Your task to perform on an android device: uninstall "VLC for Android" Image 0: 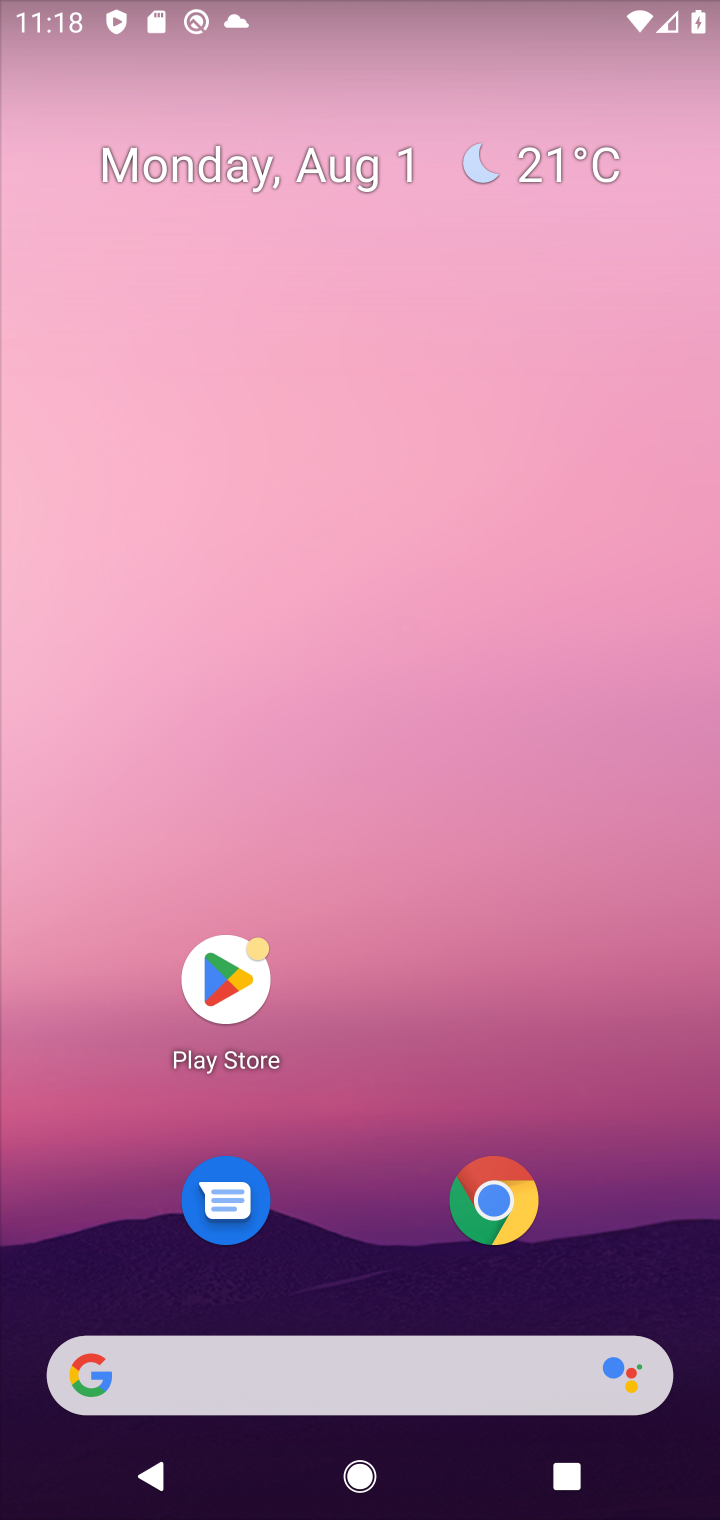
Step 0: click (238, 985)
Your task to perform on an android device: uninstall "VLC for Android" Image 1: 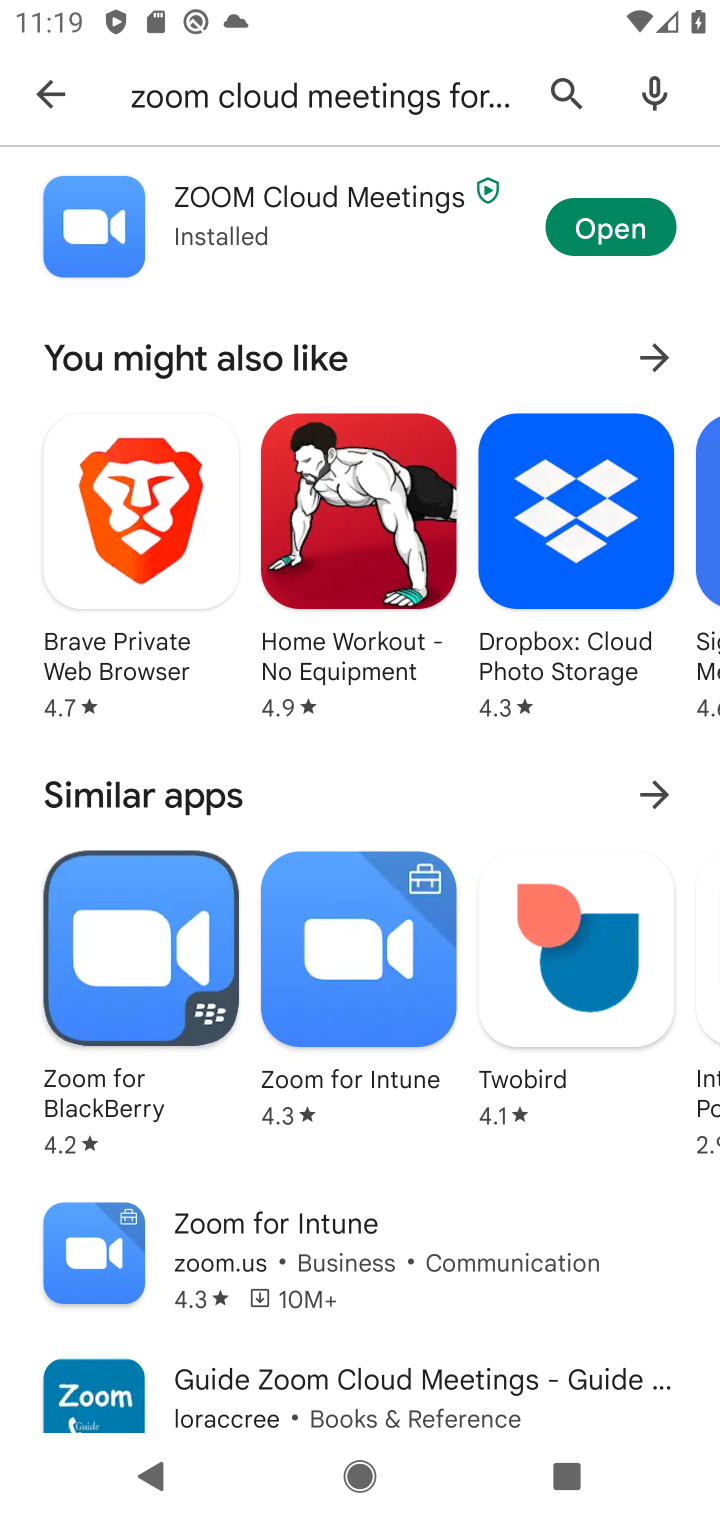
Step 1: click (550, 85)
Your task to perform on an android device: uninstall "VLC for Android" Image 2: 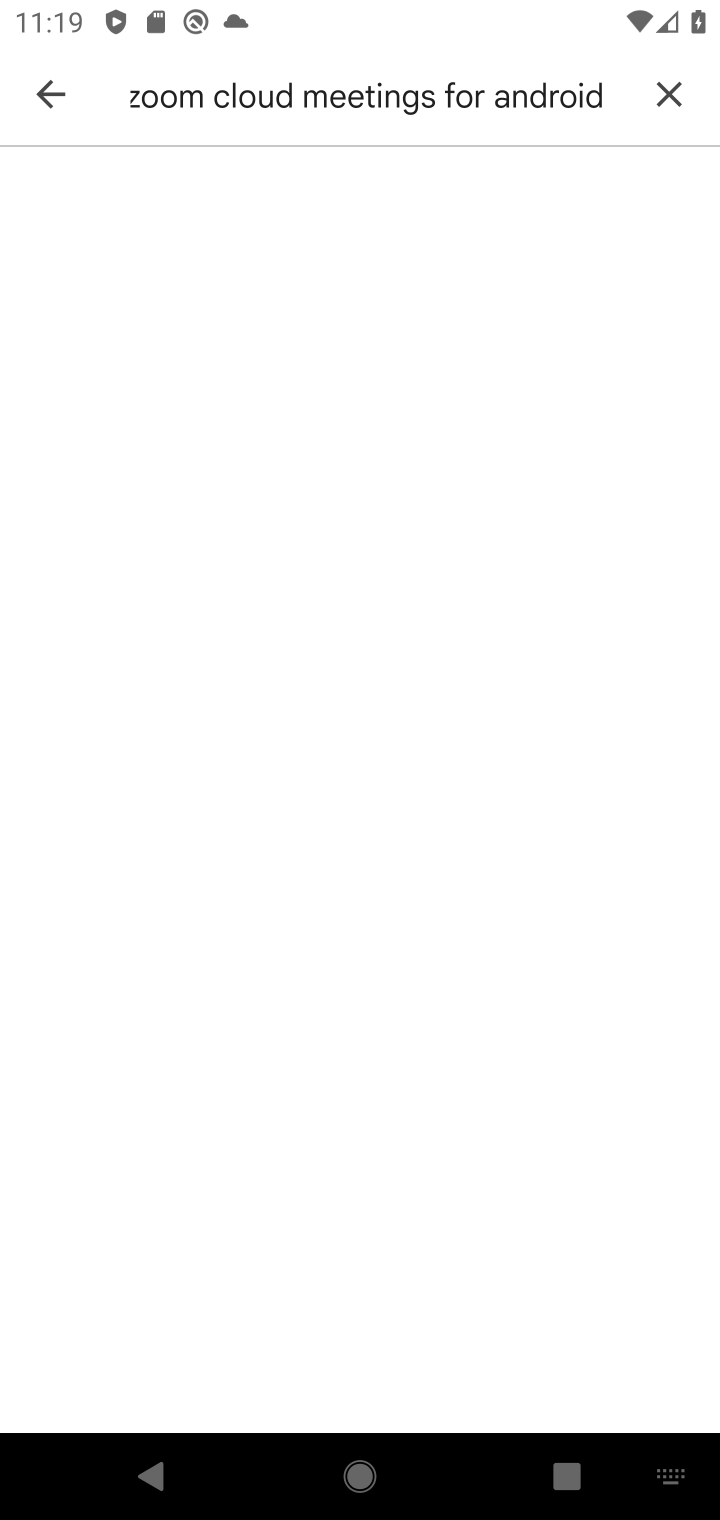
Step 2: click (665, 95)
Your task to perform on an android device: uninstall "VLC for Android" Image 3: 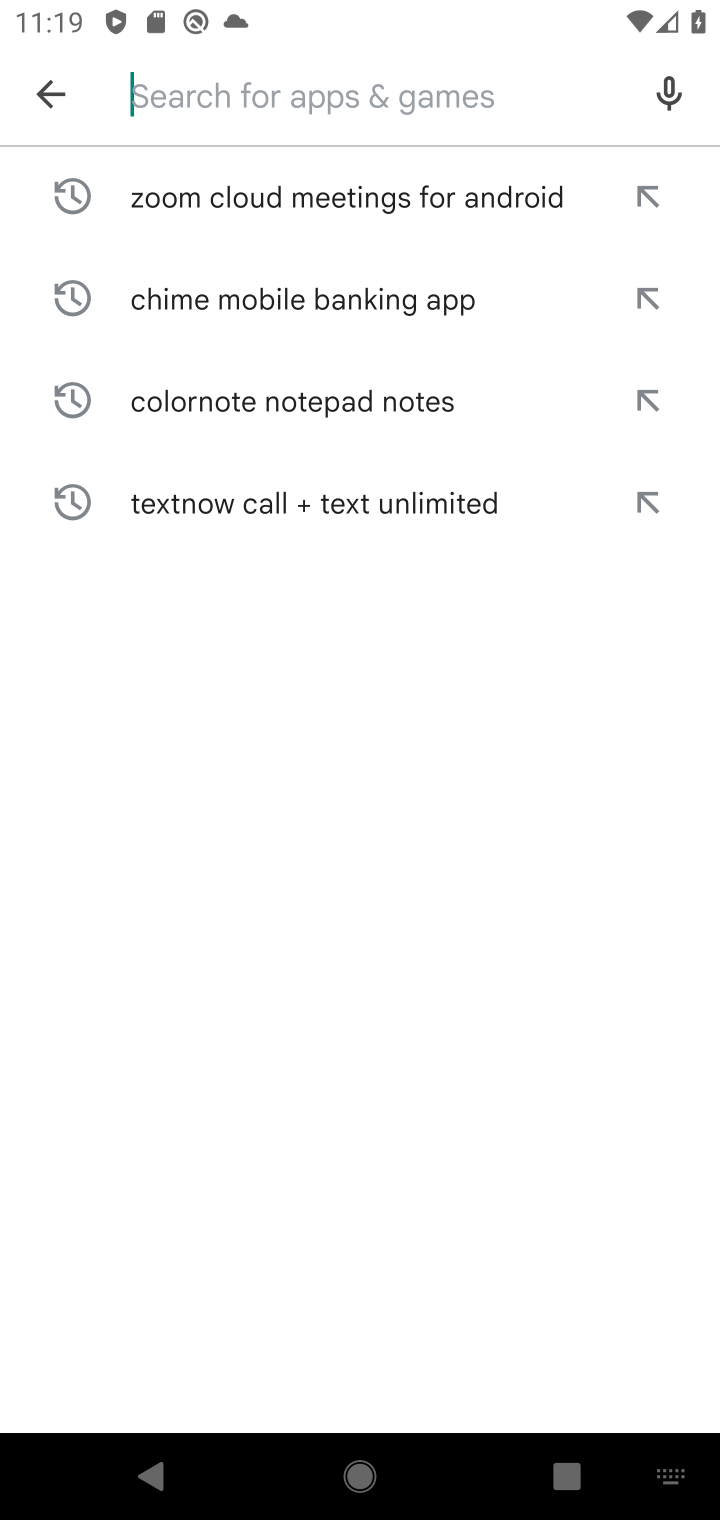
Step 3: type "VLC for Android"
Your task to perform on an android device: uninstall "VLC for Android" Image 4: 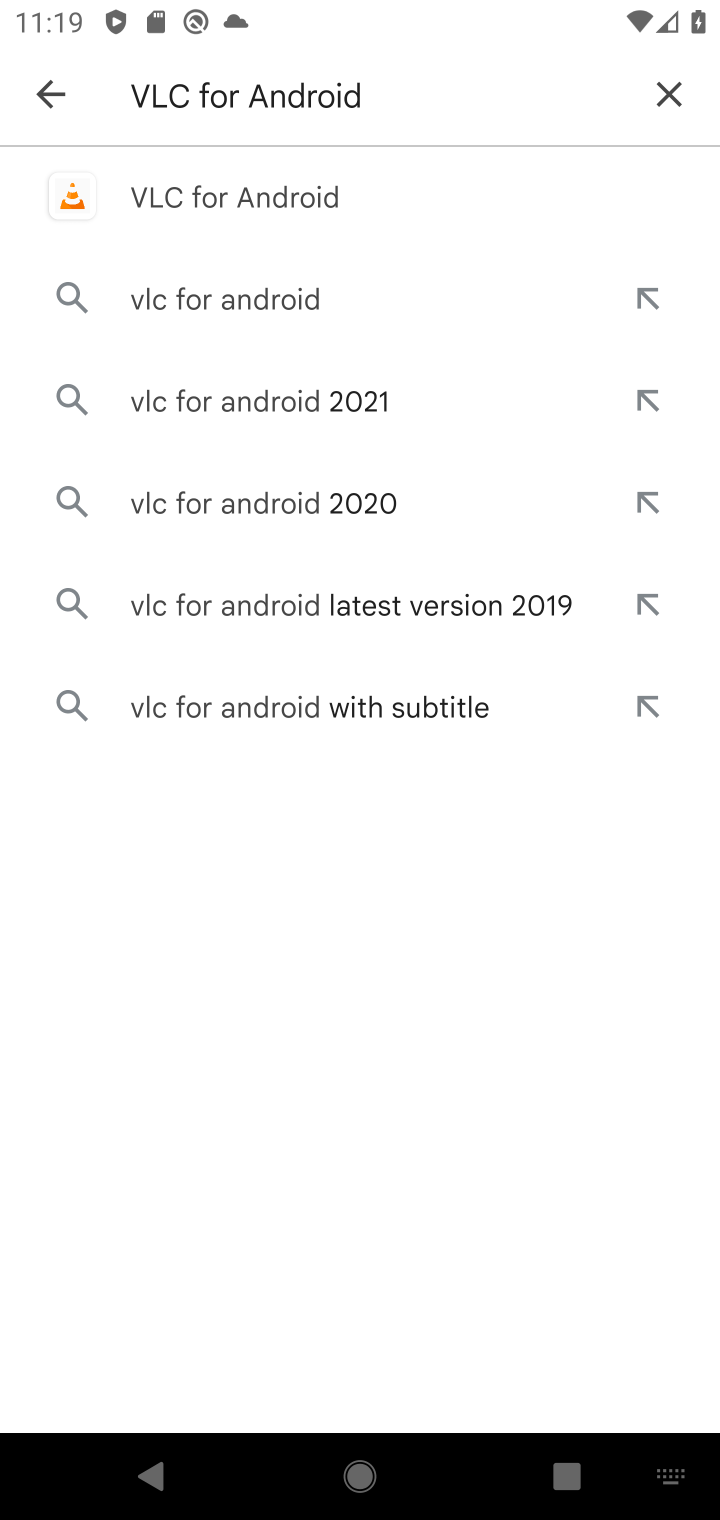
Step 4: click (209, 209)
Your task to perform on an android device: uninstall "VLC for Android" Image 5: 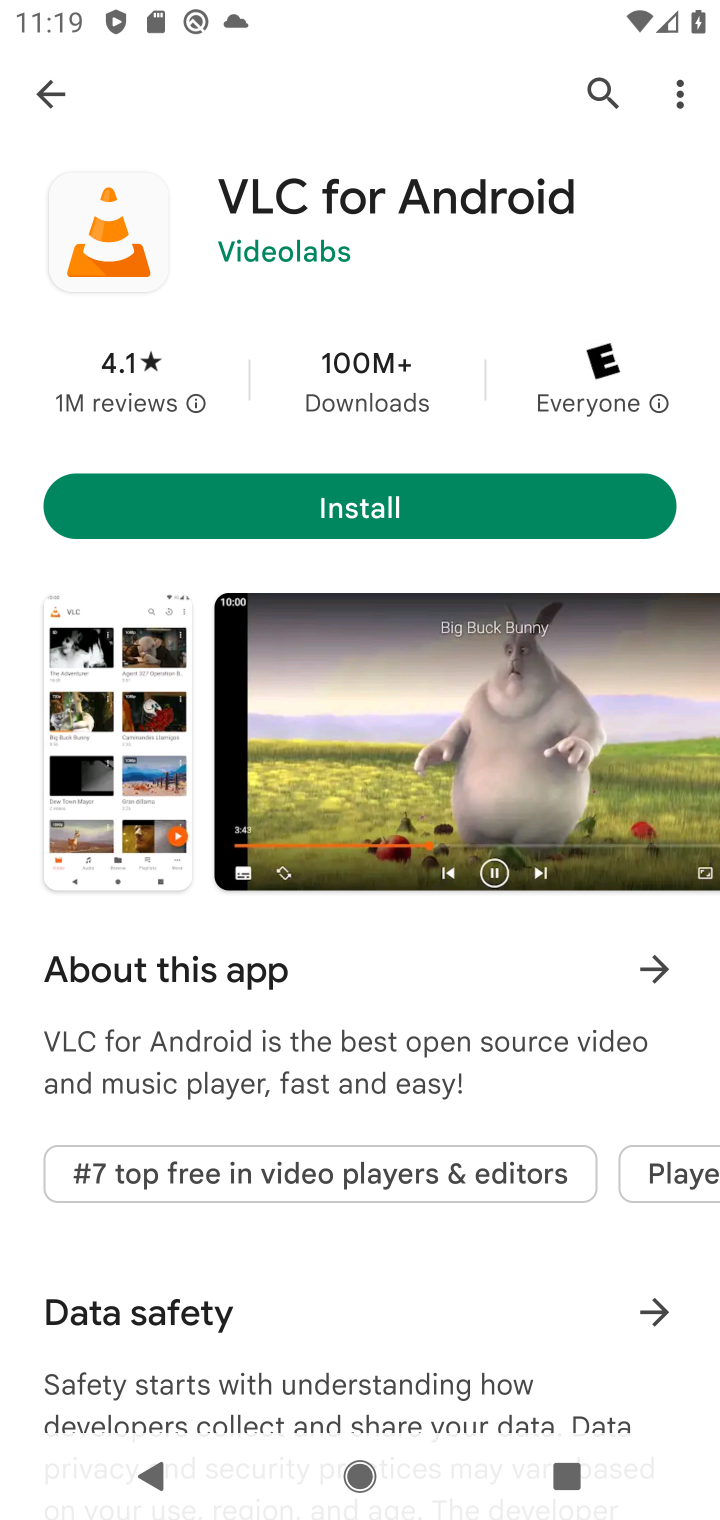
Step 5: task complete